Your task to perform on an android device: star an email in the gmail app Image 0: 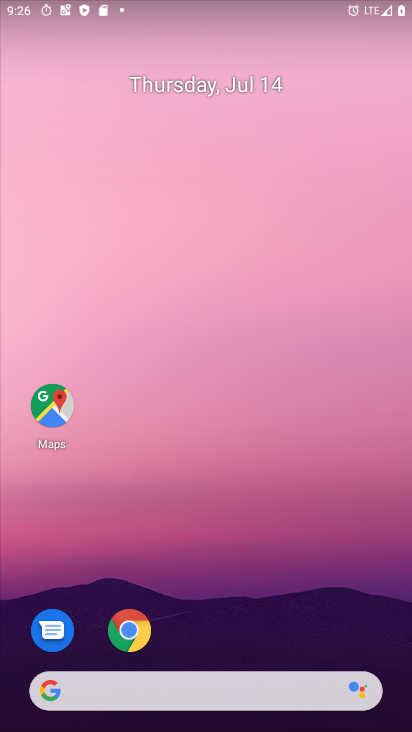
Step 0: drag from (234, 725) to (257, 204)
Your task to perform on an android device: star an email in the gmail app Image 1: 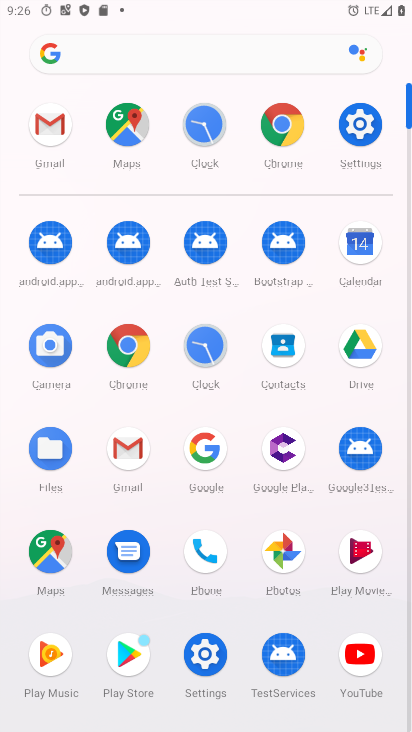
Step 1: click (134, 448)
Your task to perform on an android device: star an email in the gmail app Image 2: 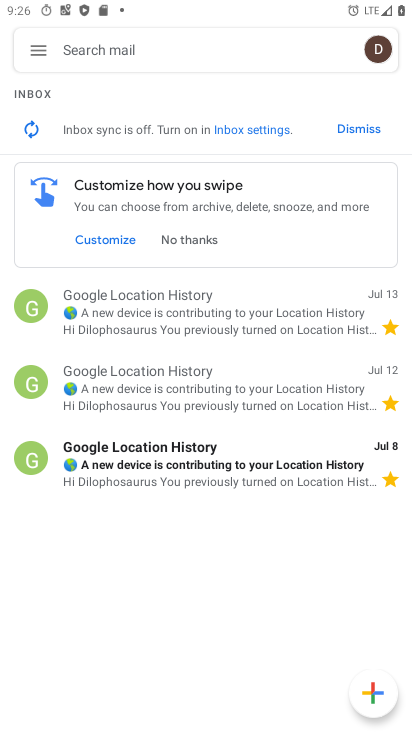
Step 2: task complete